Your task to perform on an android device: What's the weather going to be this weekend? Image 0: 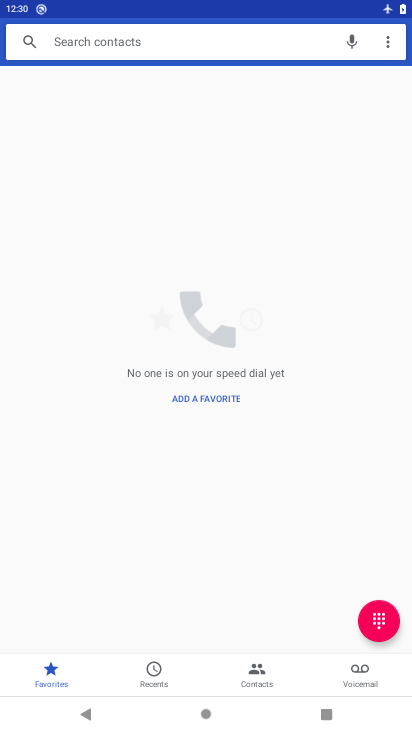
Step 0: press home button
Your task to perform on an android device: What's the weather going to be this weekend? Image 1: 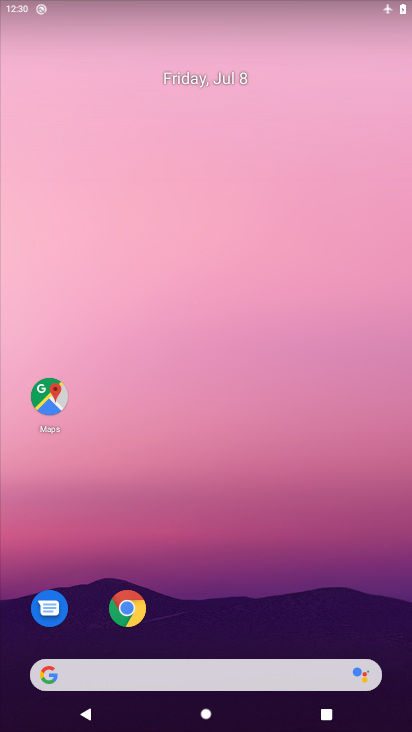
Step 1: drag from (285, 630) to (294, 457)
Your task to perform on an android device: What's the weather going to be this weekend? Image 2: 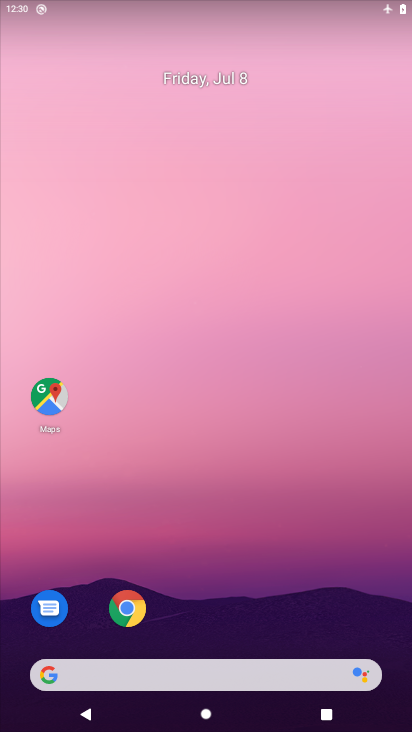
Step 2: drag from (255, 472) to (186, 163)
Your task to perform on an android device: What's the weather going to be this weekend? Image 3: 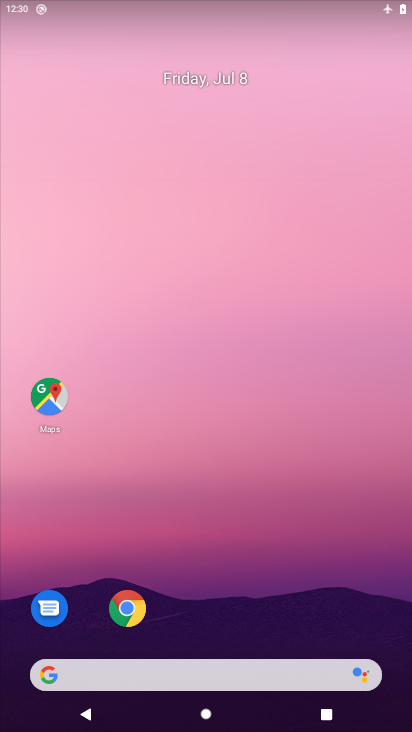
Step 3: click (123, 617)
Your task to perform on an android device: What's the weather going to be this weekend? Image 4: 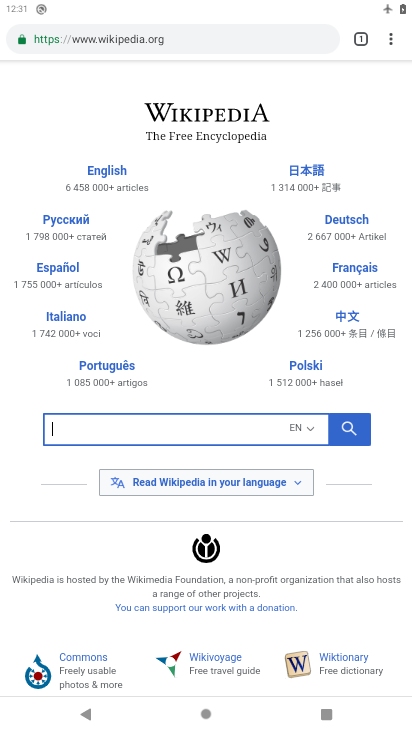
Step 4: click (123, 36)
Your task to perform on an android device: What's the weather going to be this weekend? Image 5: 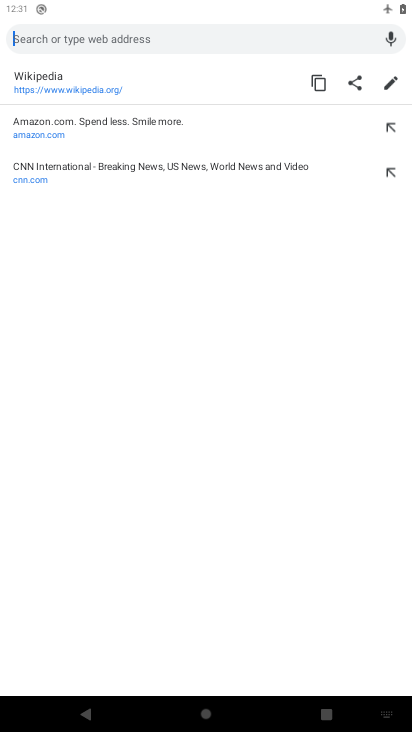
Step 5: type "What's the weather going to be this weekend?"
Your task to perform on an android device: What's the weather going to be this weekend? Image 6: 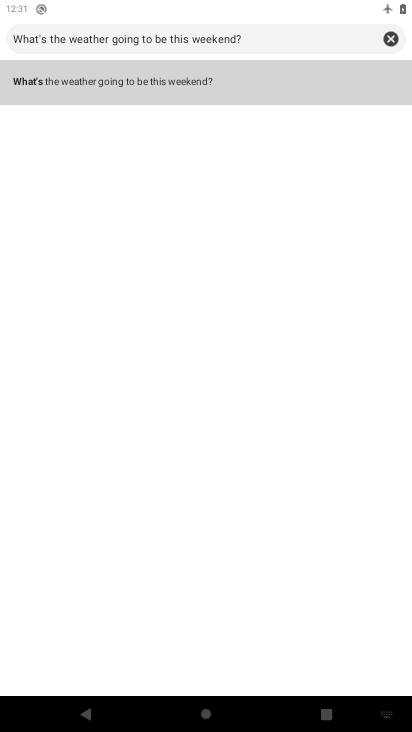
Step 6: click (88, 83)
Your task to perform on an android device: What's the weather going to be this weekend? Image 7: 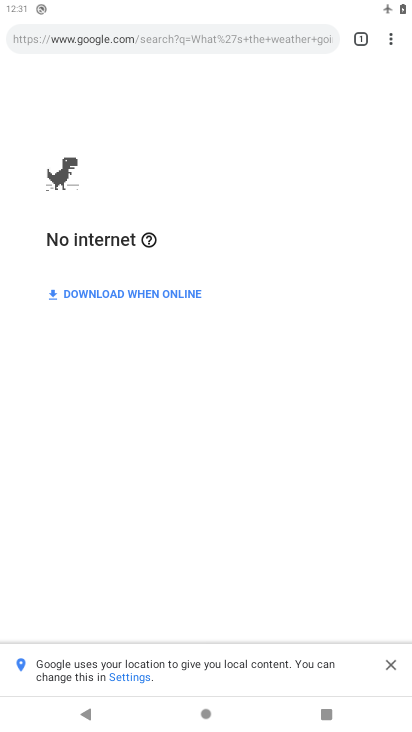
Step 7: drag from (358, 7) to (284, 270)
Your task to perform on an android device: What's the weather going to be this weekend? Image 8: 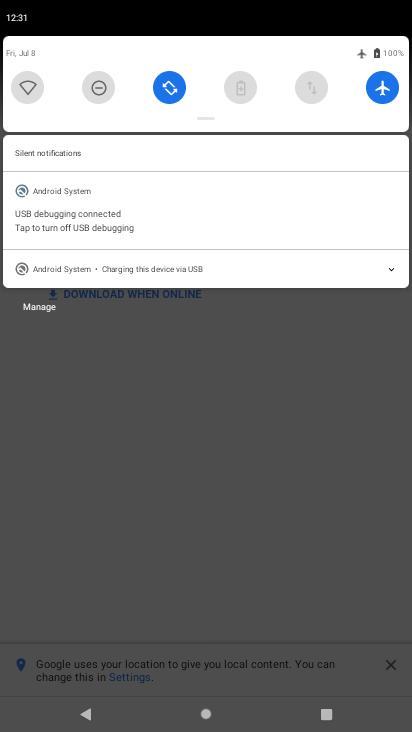
Step 8: click (369, 79)
Your task to perform on an android device: What's the weather going to be this weekend? Image 9: 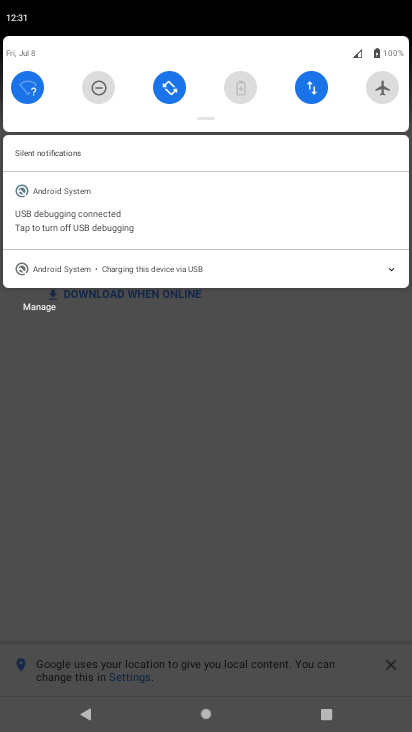
Step 9: task complete